Your task to perform on an android device: Clear all items from cart on ebay. Search for "alienware area 51" on ebay, select the first entry, add it to the cart, then select checkout. Image 0: 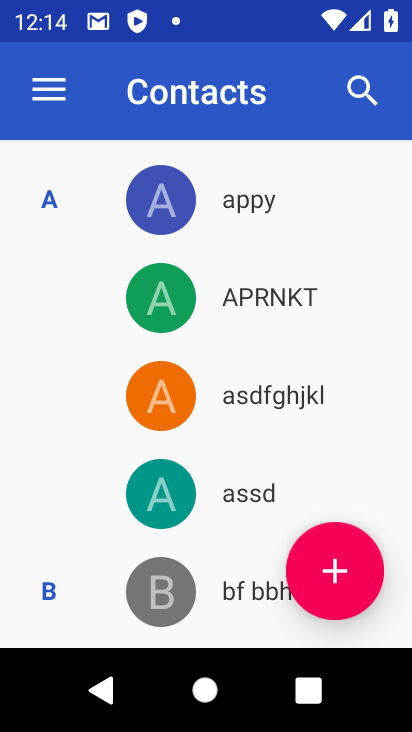
Step 0: press home button
Your task to perform on an android device: Clear all items from cart on ebay. Search for "alienware area 51" on ebay, select the first entry, add it to the cart, then select checkout. Image 1: 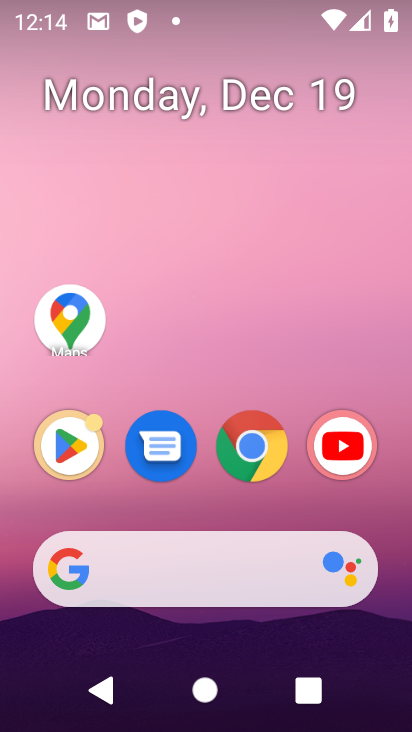
Step 1: click (266, 445)
Your task to perform on an android device: Clear all items from cart on ebay. Search for "alienware area 51" on ebay, select the first entry, add it to the cart, then select checkout. Image 2: 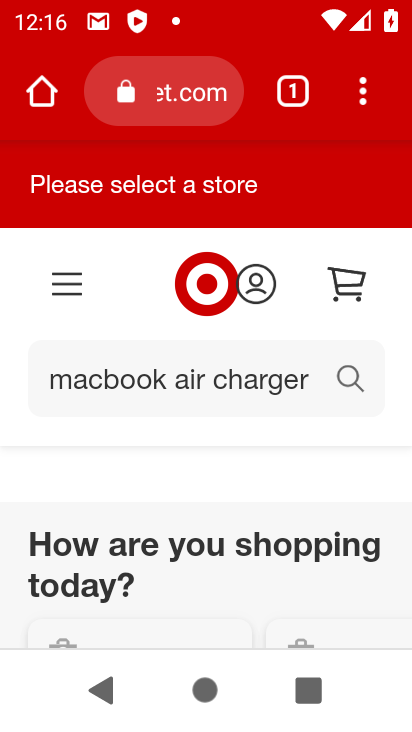
Step 2: task complete